Your task to perform on an android device: open app "Viber Messenger" (install if not already installed) Image 0: 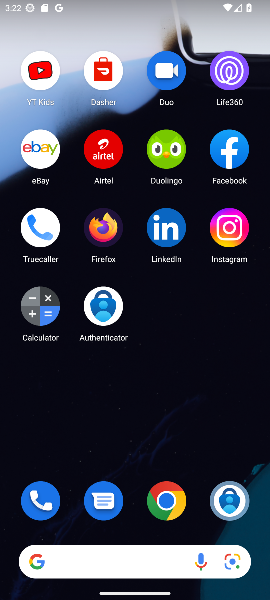
Step 0: drag from (122, 438) to (196, 35)
Your task to perform on an android device: open app "Viber Messenger" (install if not already installed) Image 1: 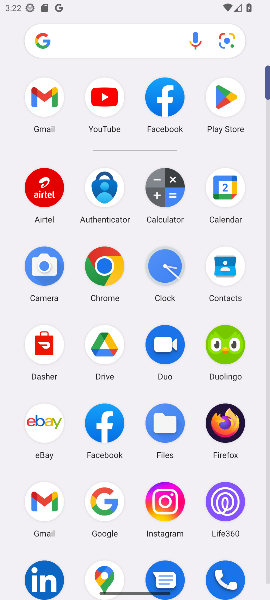
Step 1: click (219, 94)
Your task to perform on an android device: open app "Viber Messenger" (install if not already installed) Image 2: 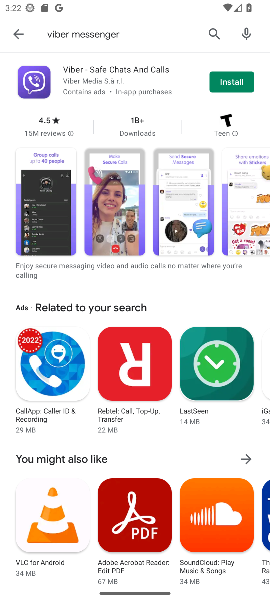
Step 2: click (211, 32)
Your task to perform on an android device: open app "Viber Messenger" (install if not already installed) Image 3: 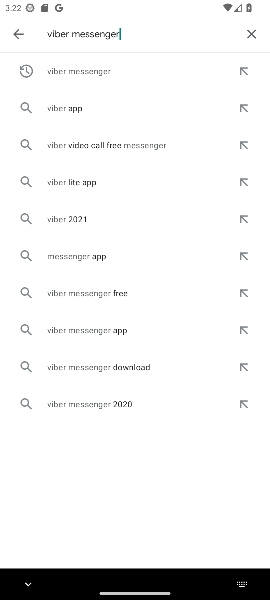
Step 3: click (250, 38)
Your task to perform on an android device: open app "Viber Messenger" (install if not already installed) Image 4: 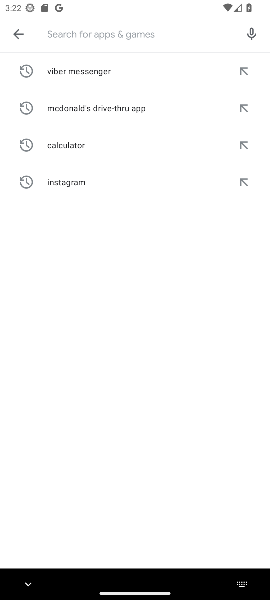
Step 4: type "Viber Messenger"
Your task to perform on an android device: open app "Viber Messenger" (install if not already installed) Image 5: 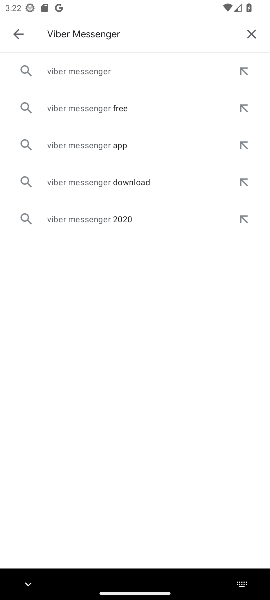
Step 5: click (91, 69)
Your task to perform on an android device: open app "Viber Messenger" (install if not already installed) Image 6: 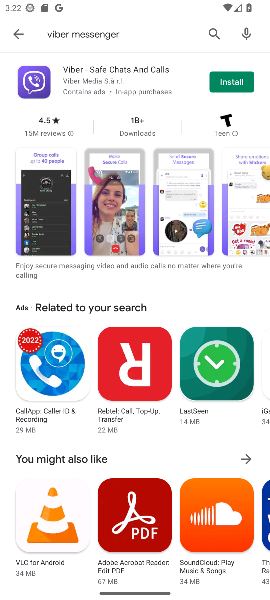
Step 6: click (240, 87)
Your task to perform on an android device: open app "Viber Messenger" (install if not already installed) Image 7: 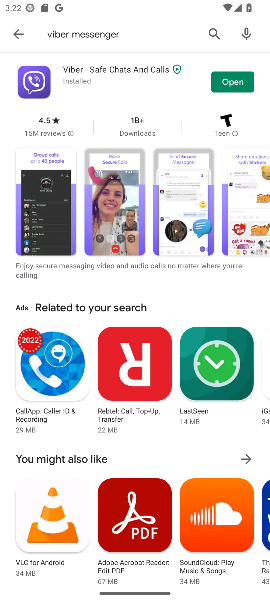
Step 7: click (230, 87)
Your task to perform on an android device: open app "Viber Messenger" (install if not already installed) Image 8: 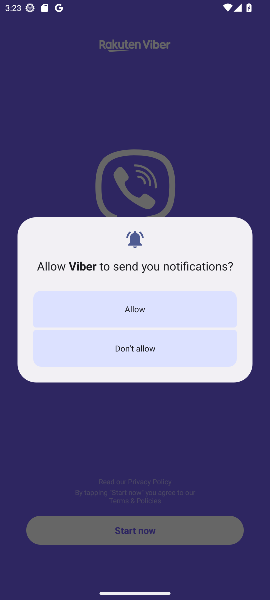
Step 8: task complete